Your task to perform on an android device: see tabs open on other devices in the chrome app Image 0: 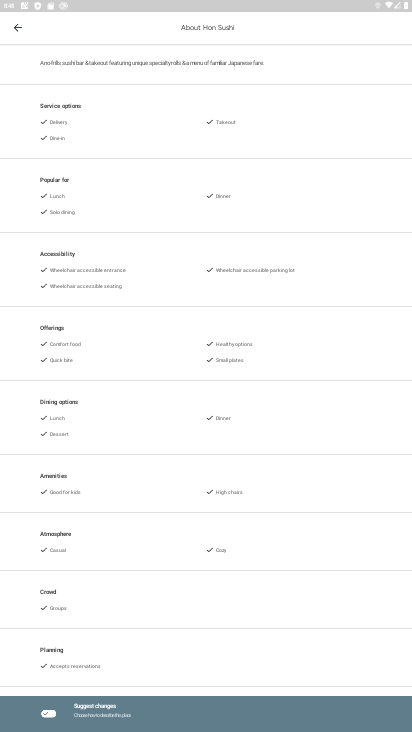
Step 0: press home button
Your task to perform on an android device: see tabs open on other devices in the chrome app Image 1: 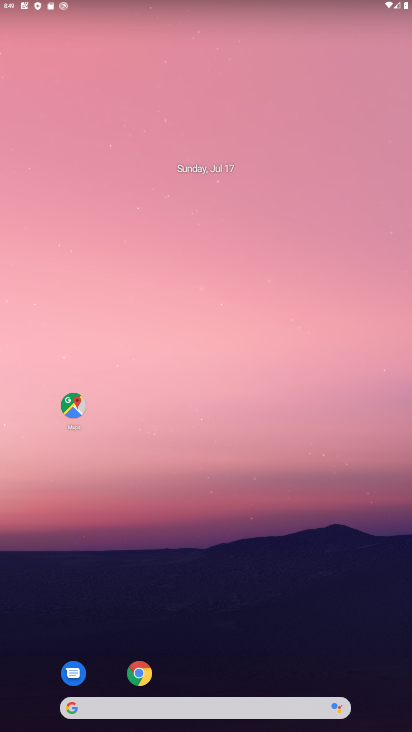
Step 1: drag from (305, 615) to (319, 68)
Your task to perform on an android device: see tabs open on other devices in the chrome app Image 2: 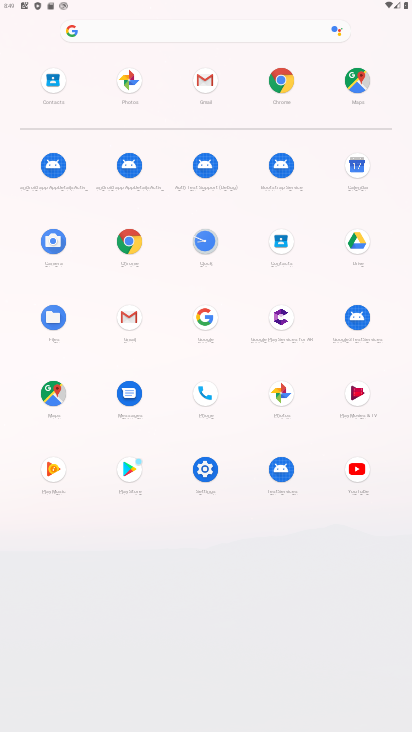
Step 2: click (129, 241)
Your task to perform on an android device: see tabs open on other devices in the chrome app Image 3: 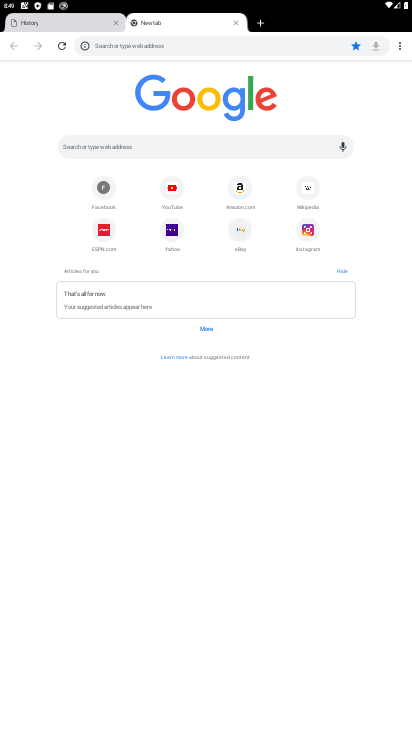
Step 3: task complete